Your task to perform on an android device: When is my next meeting? Image 0: 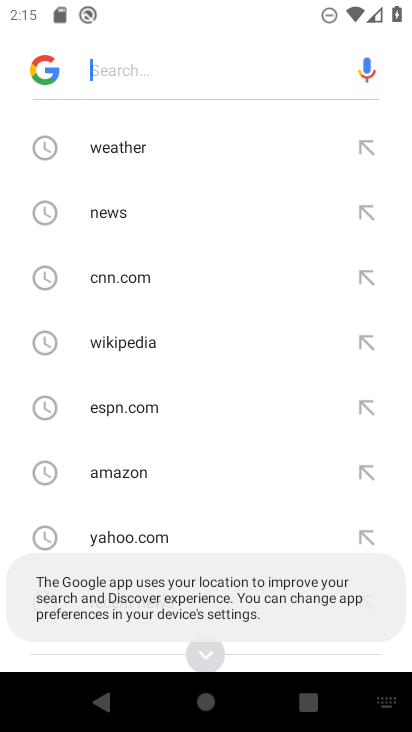
Step 0: press back button
Your task to perform on an android device: When is my next meeting? Image 1: 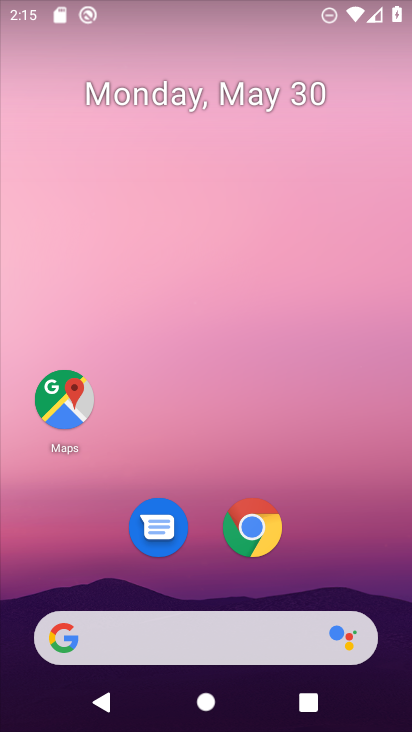
Step 1: drag from (275, 697) to (172, 215)
Your task to perform on an android device: When is my next meeting? Image 2: 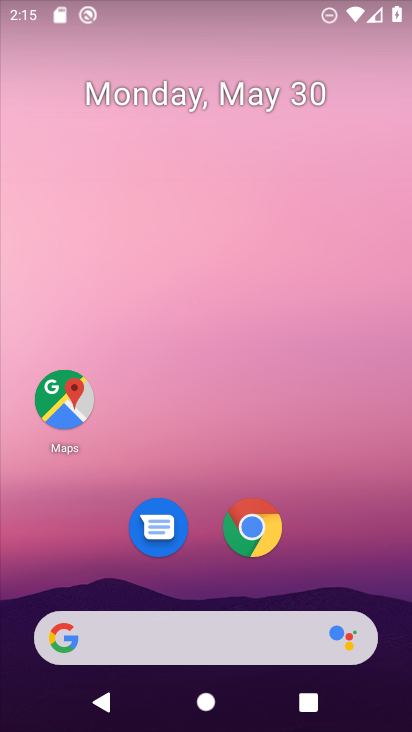
Step 2: drag from (221, 716) to (143, 141)
Your task to perform on an android device: When is my next meeting? Image 3: 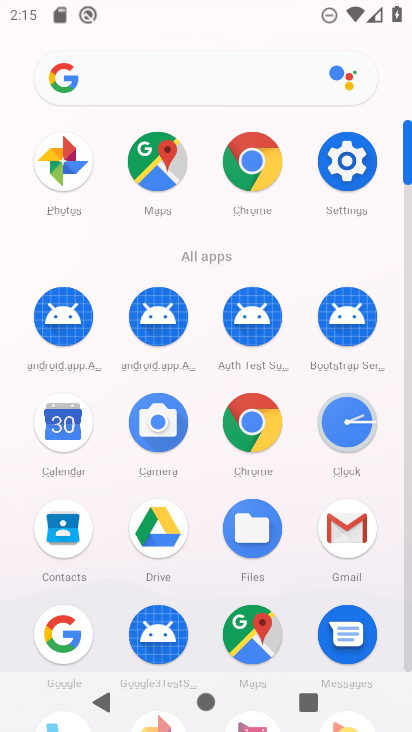
Step 3: click (62, 426)
Your task to perform on an android device: When is my next meeting? Image 4: 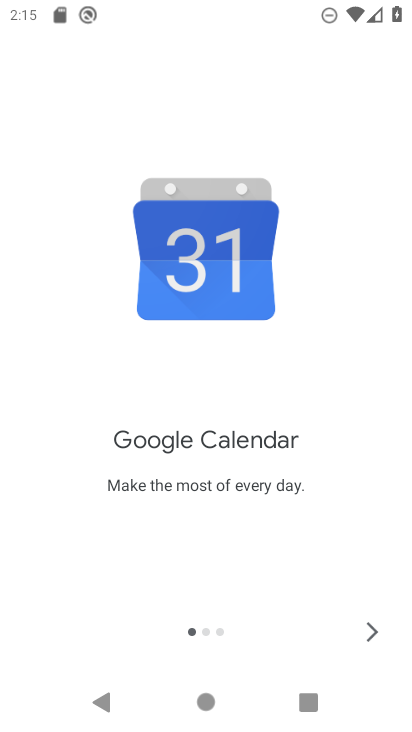
Step 4: click (365, 633)
Your task to perform on an android device: When is my next meeting? Image 5: 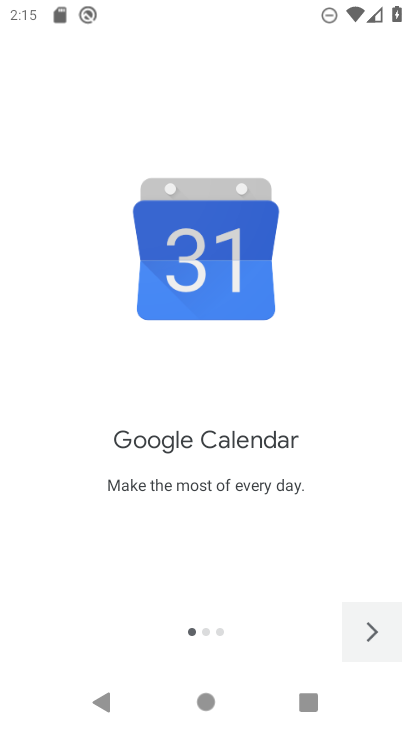
Step 5: click (366, 633)
Your task to perform on an android device: When is my next meeting? Image 6: 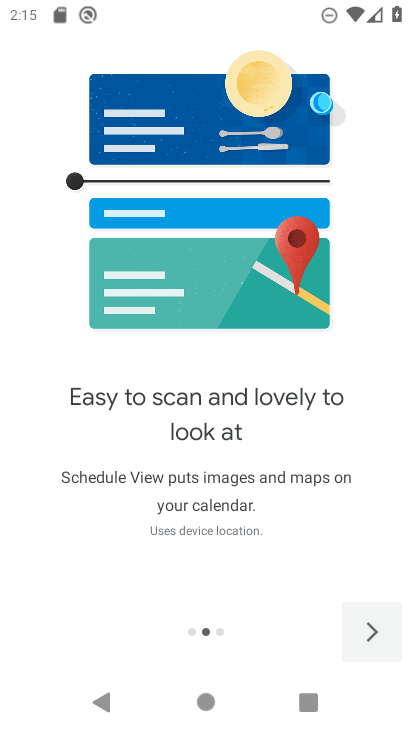
Step 6: click (369, 642)
Your task to perform on an android device: When is my next meeting? Image 7: 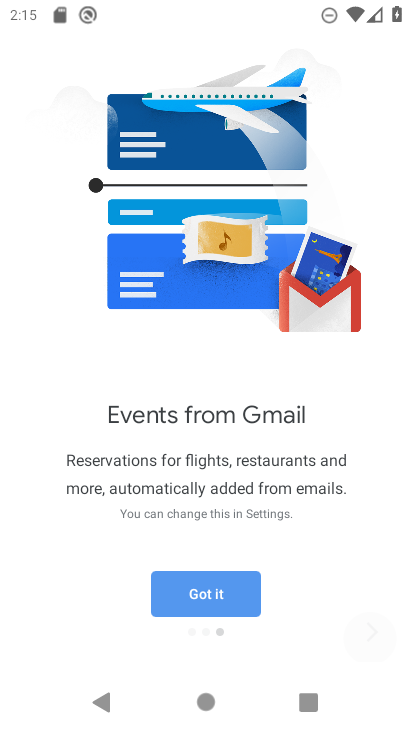
Step 7: click (369, 642)
Your task to perform on an android device: When is my next meeting? Image 8: 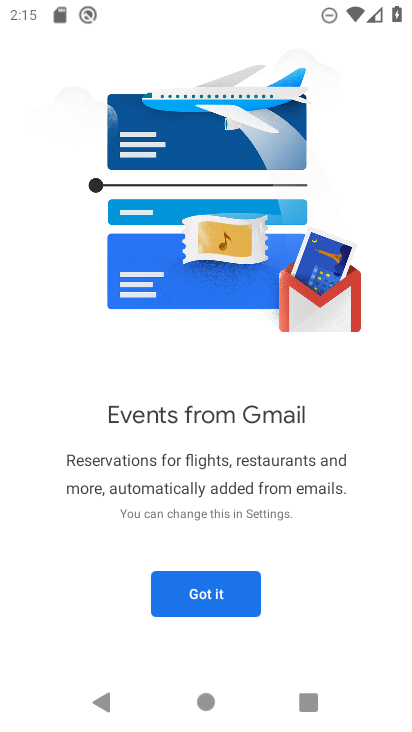
Step 8: click (369, 642)
Your task to perform on an android device: When is my next meeting? Image 9: 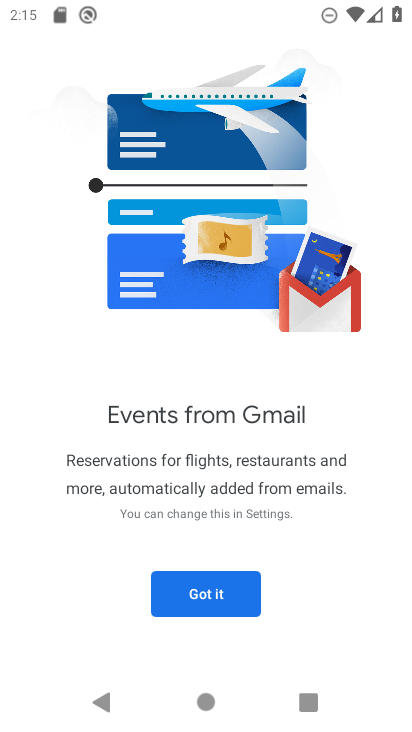
Step 9: click (199, 586)
Your task to perform on an android device: When is my next meeting? Image 10: 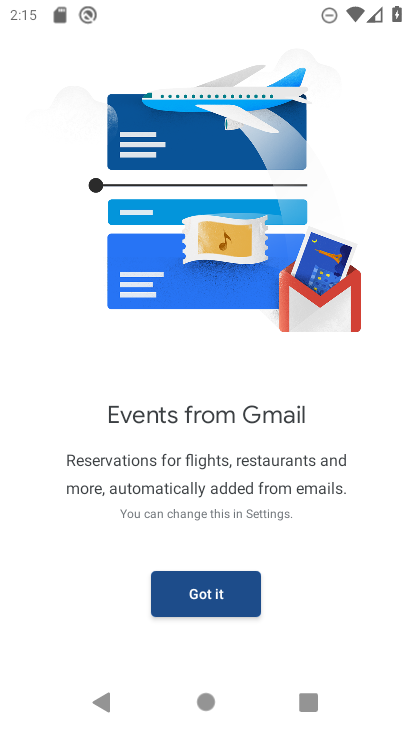
Step 10: click (203, 586)
Your task to perform on an android device: When is my next meeting? Image 11: 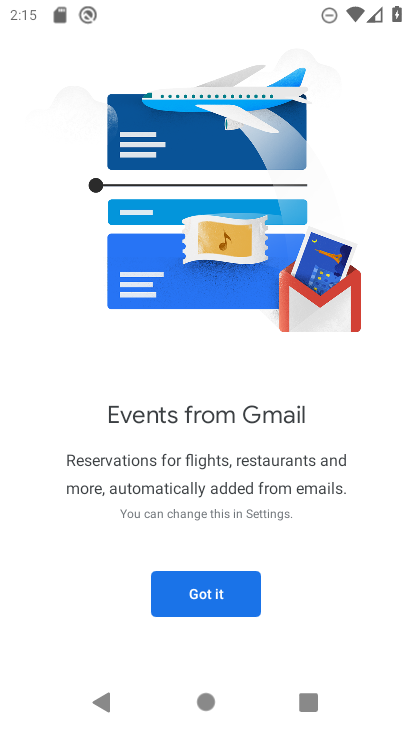
Step 11: click (204, 587)
Your task to perform on an android device: When is my next meeting? Image 12: 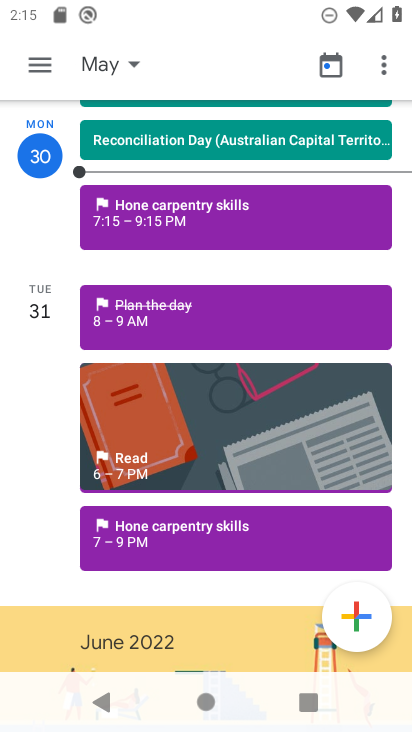
Step 12: drag from (190, 463) to (144, 138)
Your task to perform on an android device: When is my next meeting? Image 13: 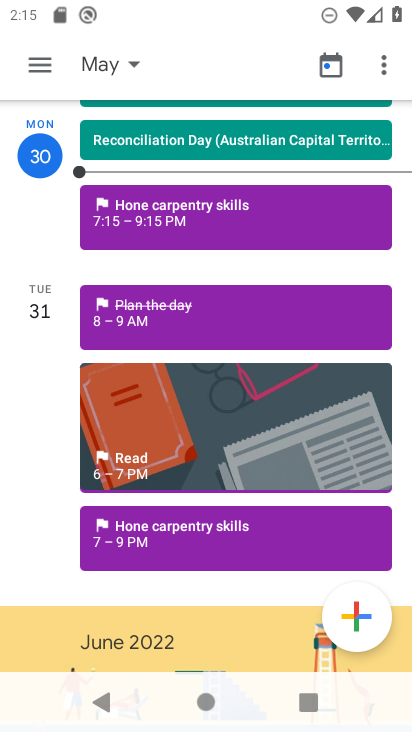
Step 13: drag from (174, 405) to (184, 136)
Your task to perform on an android device: When is my next meeting? Image 14: 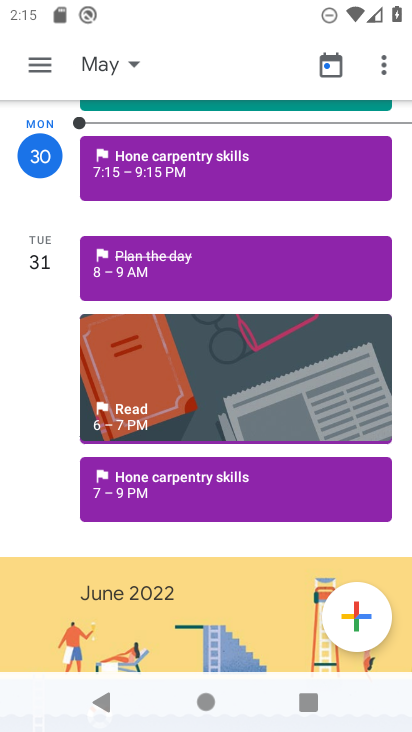
Step 14: drag from (186, 527) to (217, 94)
Your task to perform on an android device: When is my next meeting? Image 15: 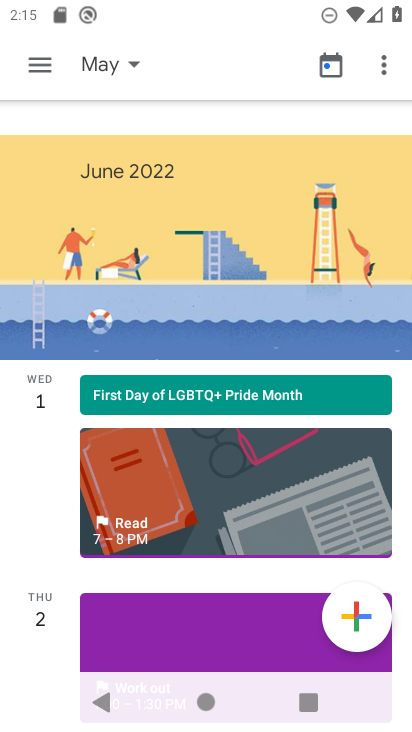
Step 15: drag from (322, 559) to (283, 104)
Your task to perform on an android device: When is my next meeting? Image 16: 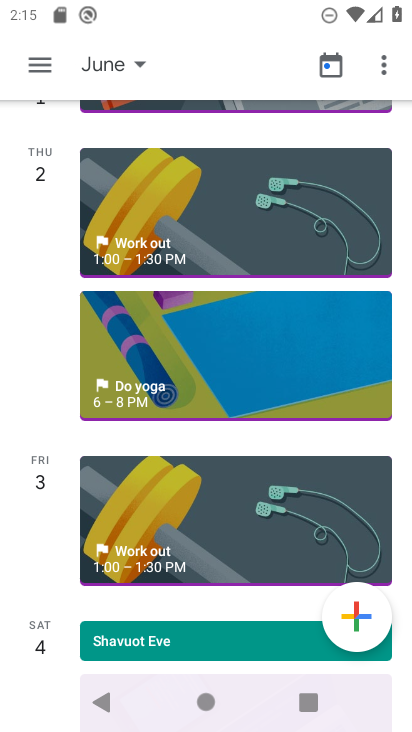
Step 16: click (328, 102)
Your task to perform on an android device: When is my next meeting? Image 17: 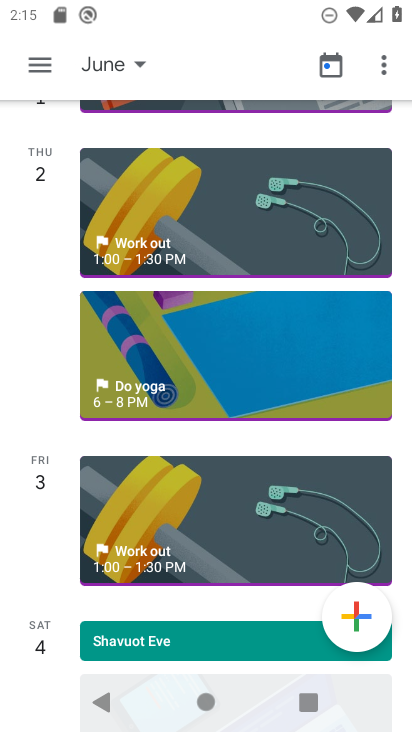
Step 17: drag from (299, 341) to (263, 131)
Your task to perform on an android device: When is my next meeting? Image 18: 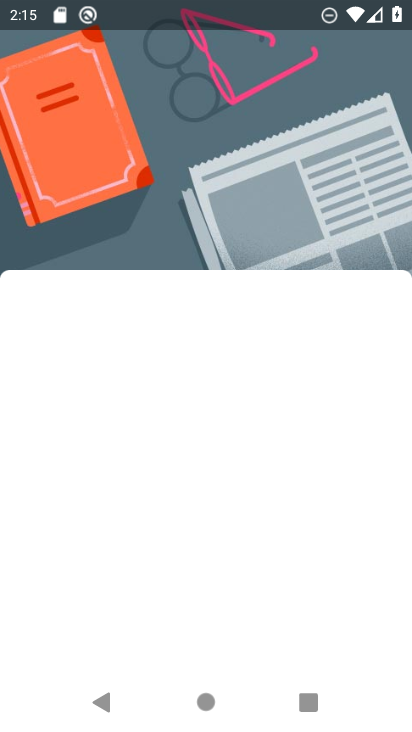
Step 18: drag from (147, 519) to (141, 189)
Your task to perform on an android device: When is my next meeting? Image 19: 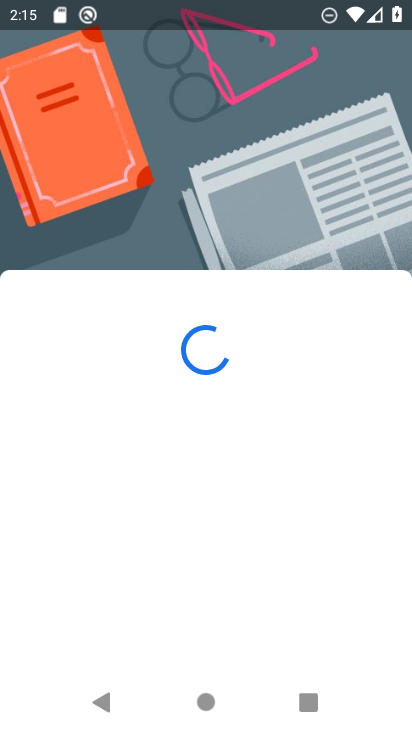
Step 19: drag from (121, 473) to (96, 137)
Your task to perform on an android device: When is my next meeting? Image 20: 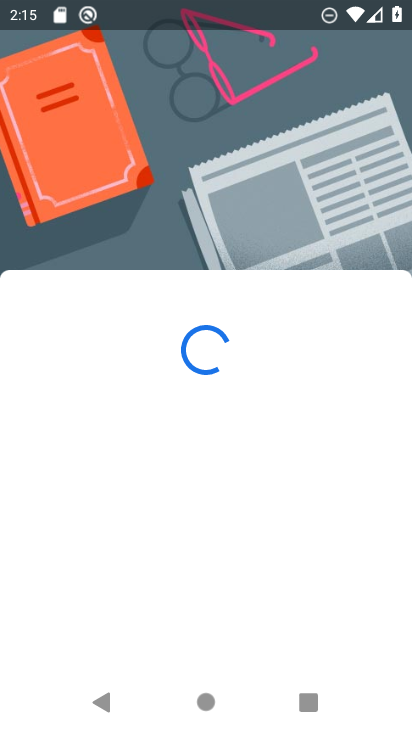
Step 20: drag from (90, 468) to (141, 128)
Your task to perform on an android device: When is my next meeting? Image 21: 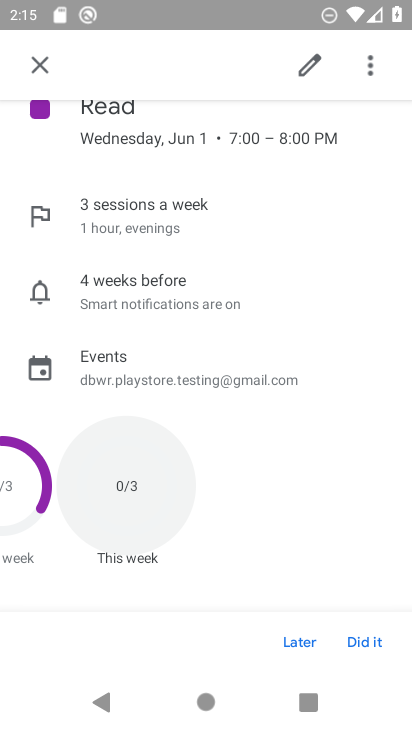
Step 21: drag from (237, 508) to (266, 269)
Your task to perform on an android device: When is my next meeting? Image 22: 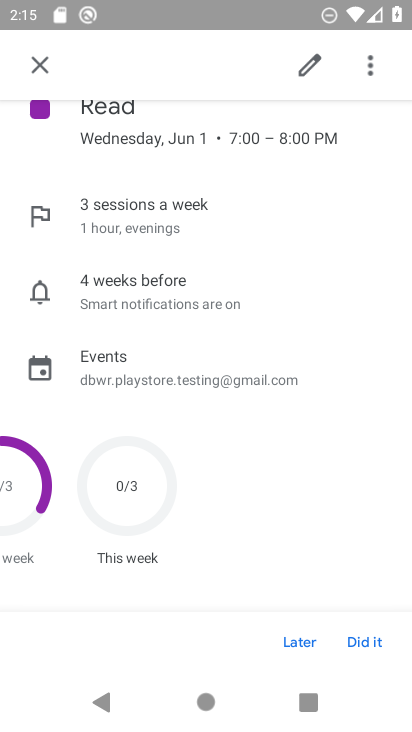
Step 22: click (145, 230)
Your task to perform on an android device: When is my next meeting? Image 23: 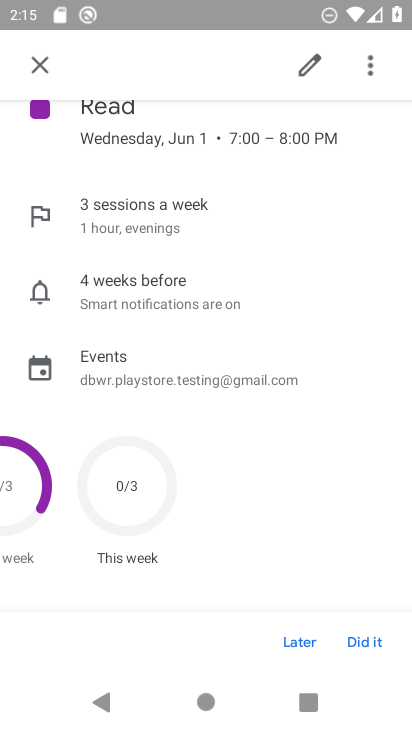
Step 23: click (98, 162)
Your task to perform on an android device: When is my next meeting? Image 24: 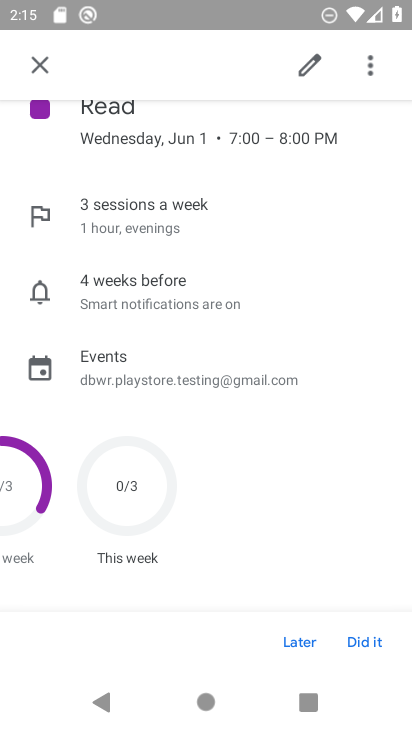
Step 24: drag from (156, 502) to (156, 205)
Your task to perform on an android device: When is my next meeting? Image 25: 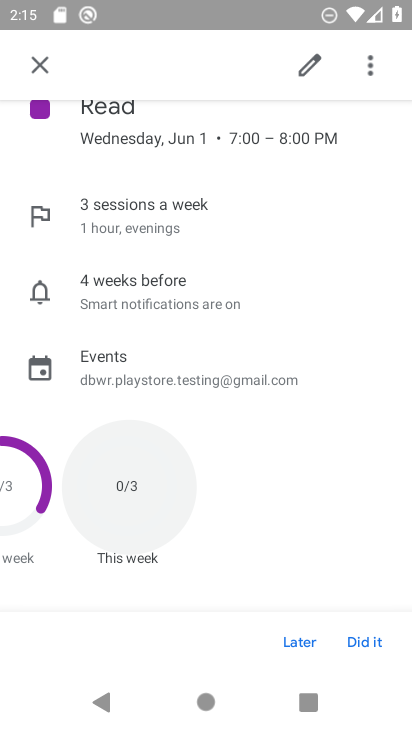
Step 25: drag from (186, 553) to (166, 341)
Your task to perform on an android device: When is my next meeting? Image 26: 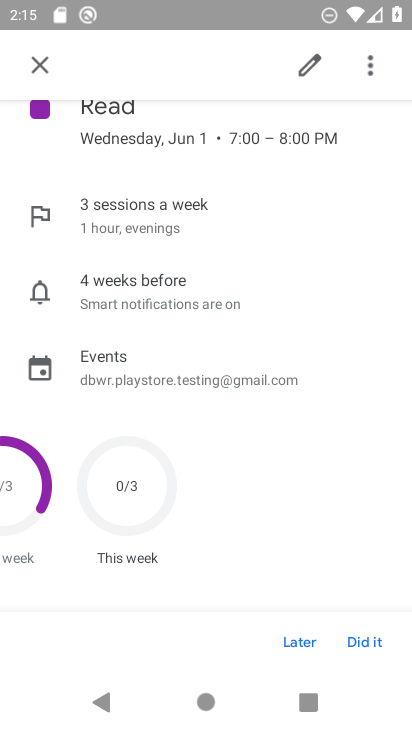
Step 26: drag from (165, 589) to (139, 279)
Your task to perform on an android device: When is my next meeting? Image 27: 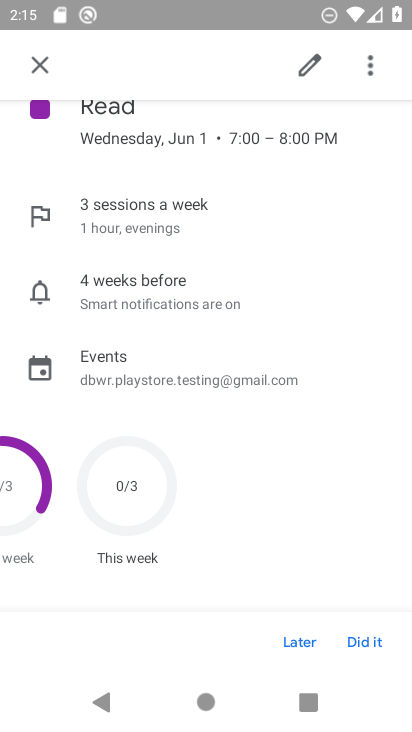
Step 27: drag from (220, 475) to (221, 304)
Your task to perform on an android device: When is my next meeting? Image 28: 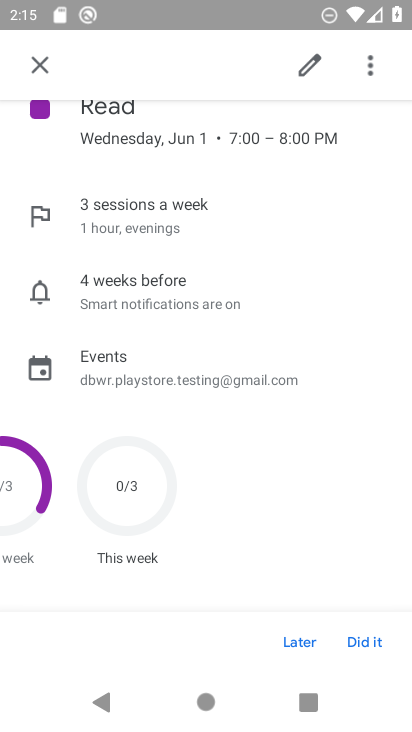
Step 28: drag from (164, 492) to (158, 279)
Your task to perform on an android device: When is my next meeting? Image 29: 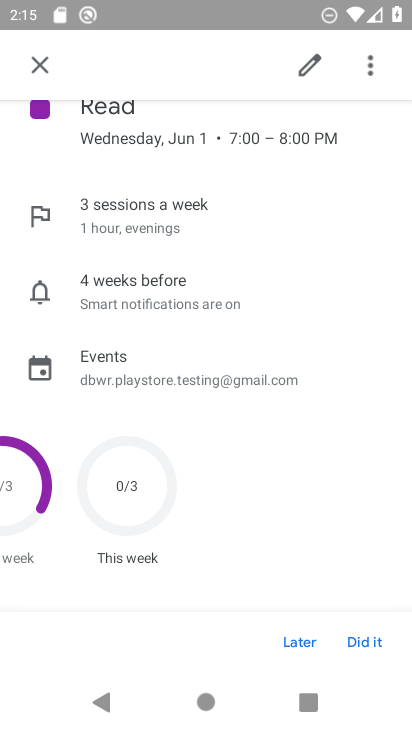
Step 29: drag from (197, 414) to (154, 211)
Your task to perform on an android device: When is my next meeting? Image 30: 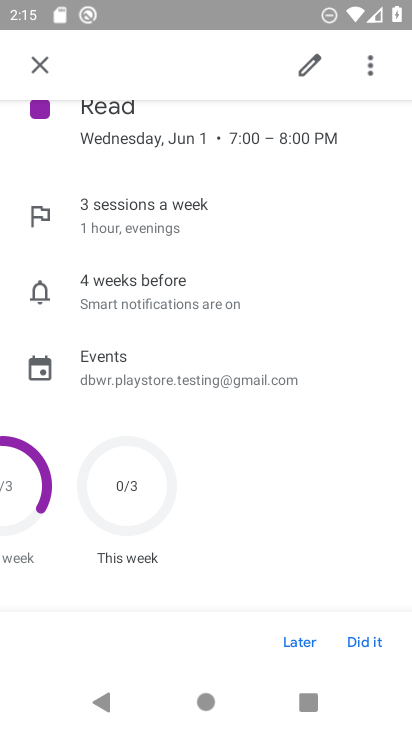
Step 30: drag from (93, 500) to (122, 257)
Your task to perform on an android device: When is my next meeting? Image 31: 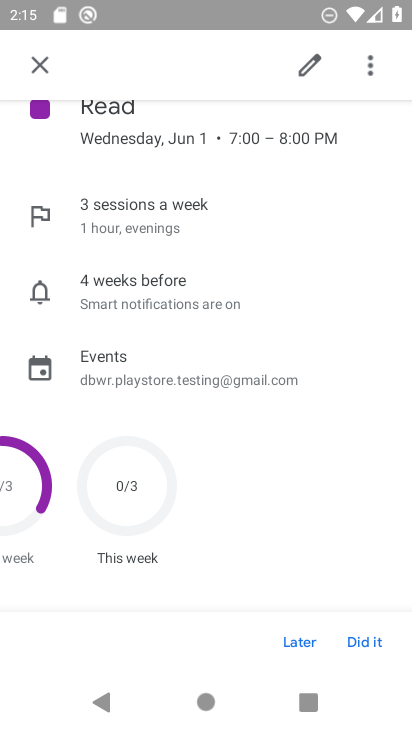
Step 31: drag from (179, 427) to (161, 231)
Your task to perform on an android device: When is my next meeting? Image 32: 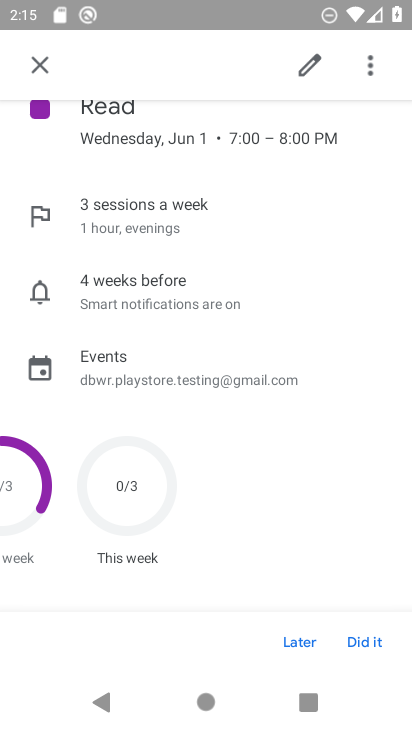
Step 32: drag from (187, 455) to (162, 216)
Your task to perform on an android device: When is my next meeting? Image 33: 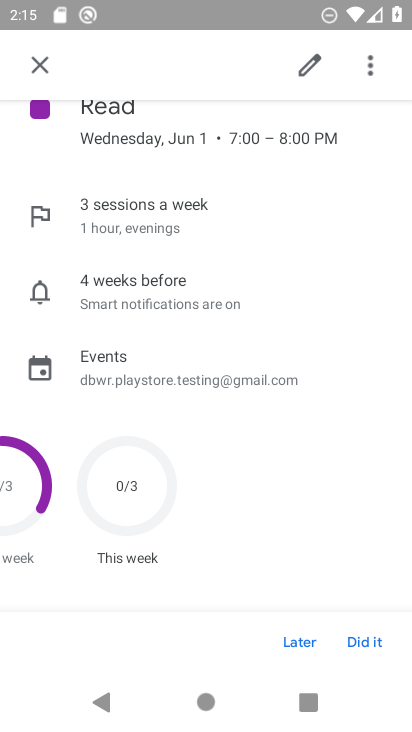
Step 33: drag from (133, 564) to (130, 318)
Your task to perform on an android device: When is my next meeting? Image 34: 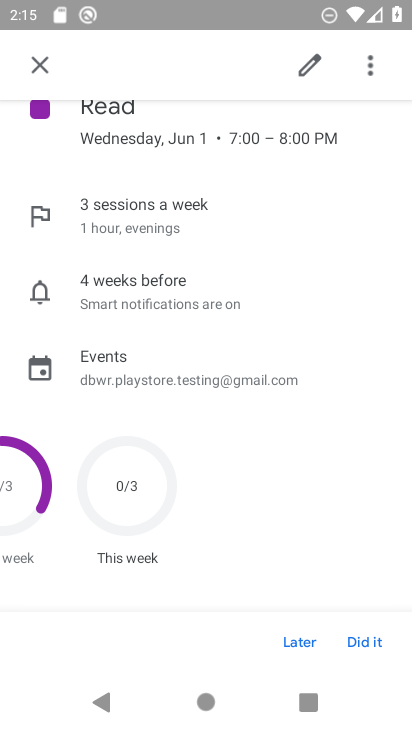
Step 34: drag from (184, 502) to (140, 270)
Your task to perform on an android device: When is my next meeting? Image 35: 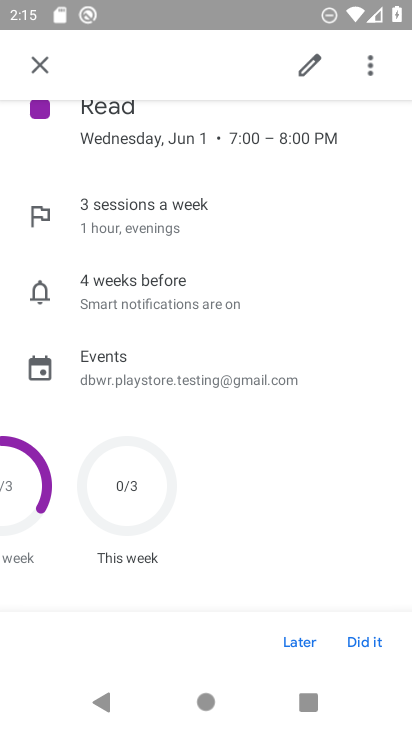
Step 35: click (128, 274)
Your task to perform on an android device: When is my next meeting? Image 36: 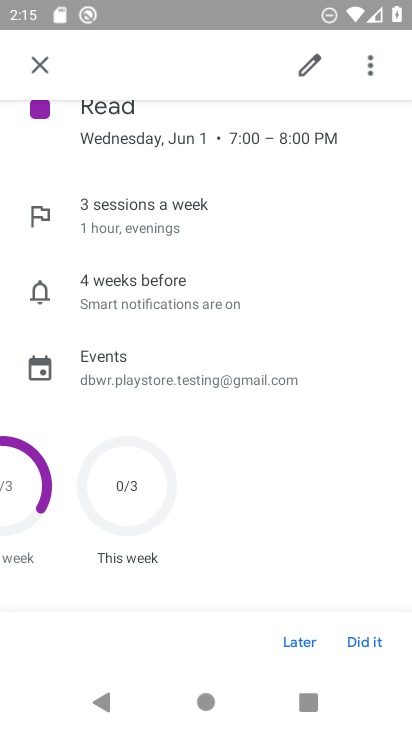
Step 36: task complete